Your task to perform on an android device: turn off location Image 0: 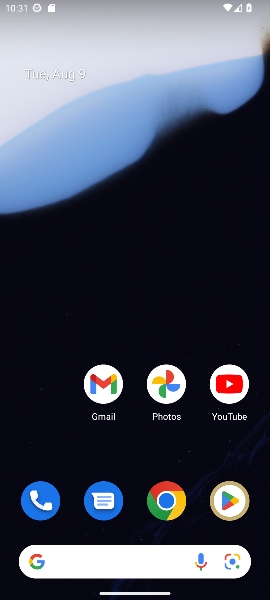
Step 0: drag from (131, 475) to (149, 63)
Your task to perform on an android device: turn off location Image 1: 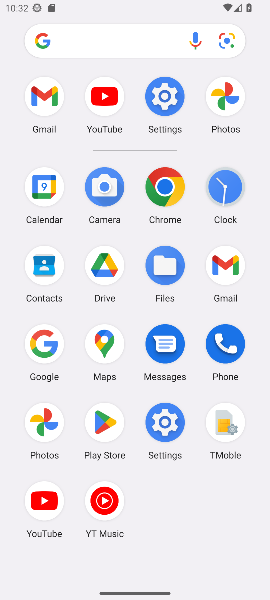
Step 1: click (159, 423)
Your task to perform on an android device: turn off location Image 2: 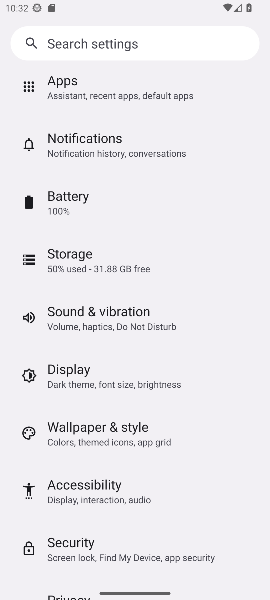
Step 2: drag from (89, 502) to (102, 172)
Your task to perform on an android device: turn off location Image 3: 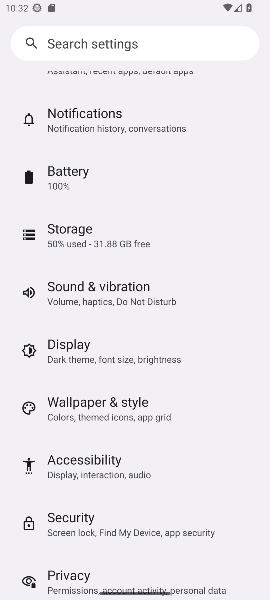
Step 3: drag from (65, 503) to (88, 199)
Your task to perform on an android device: turn off location Image 4: 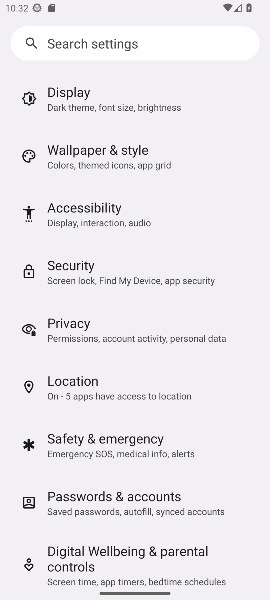
Step 4: click (79, 381)
Your task to perform on an android device: turn off location Image 5: 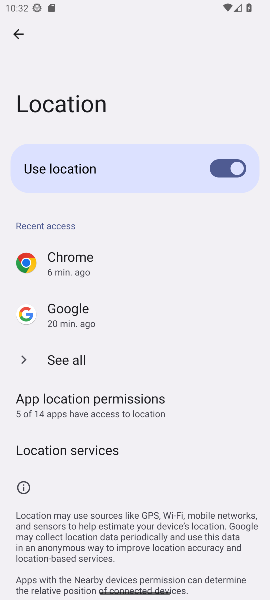
Step 5: click (215, 166)
Your task to perform on an android device: turn off location Image 6: 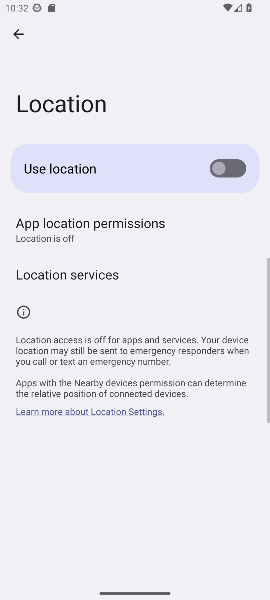
Step 6: task complete